Your task to perform on an android device: Go to Android settings Image 0: 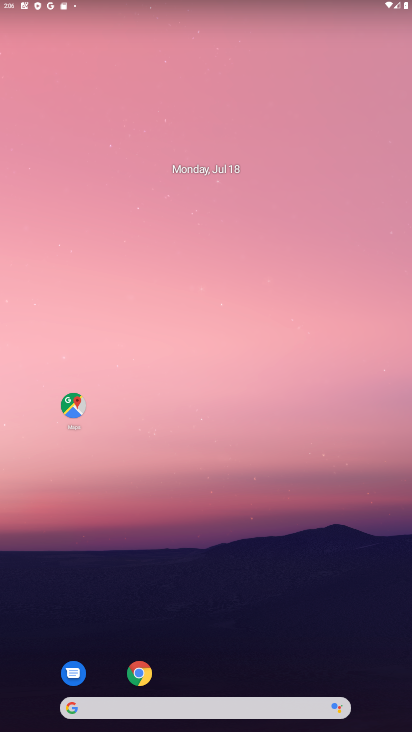
Step 0: drag from (196, 703) to (276, 150)
Your task to perform on an android device: Go to Android settings Image 1: 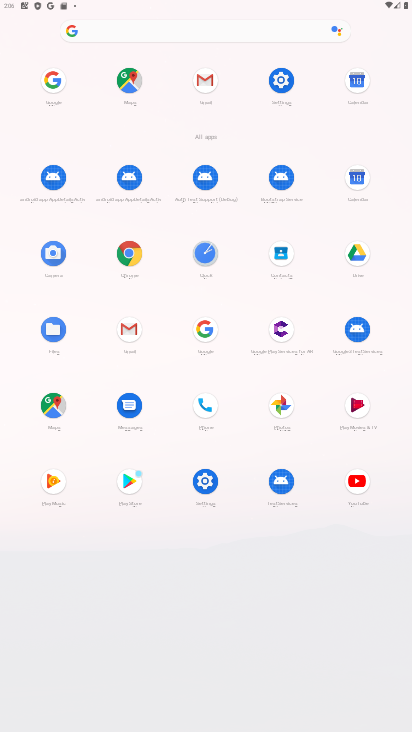
Step 1: click (282, 79)
Your task to perform on an android device: Go to Android settings Image 2: 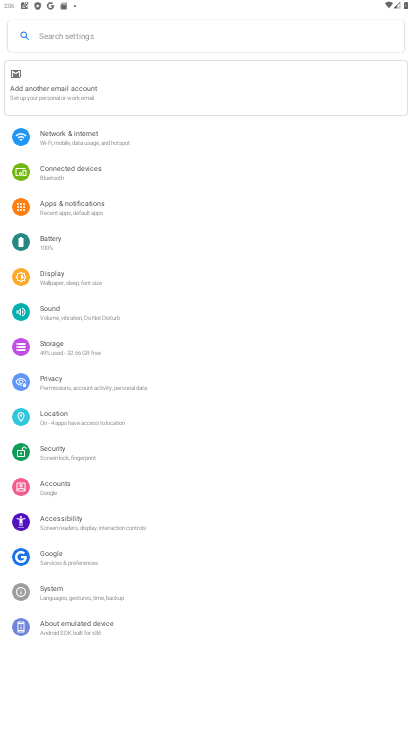
Step 2: task complete